Your task to perform on an android device: Open Google Maps and go to "Timeline" Image 0: 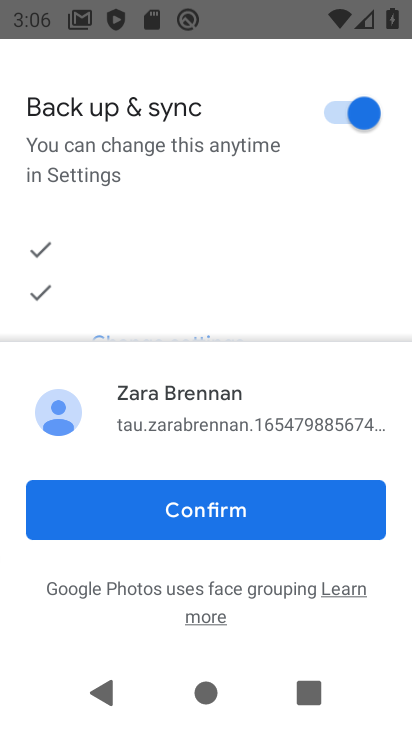
Step 0: press home button
Your task to perform on an android device: Open Google Maps and go to "Timeline" Image 1: 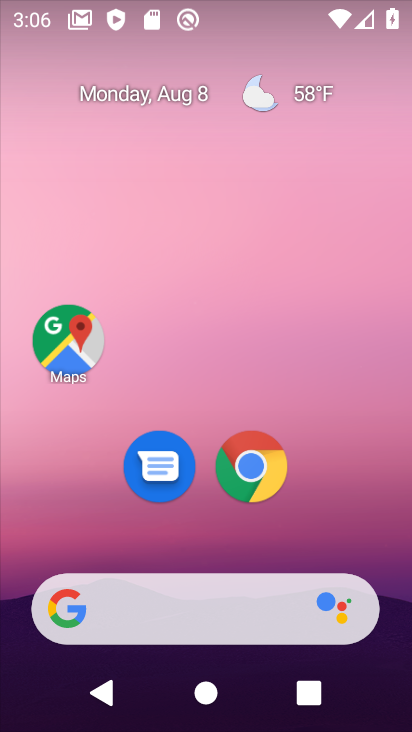
Step 1: drag from (208, 549) to (200, 298)
Your task to perform on an android device: Open Google Maps and go to "Timeline" Image 2: 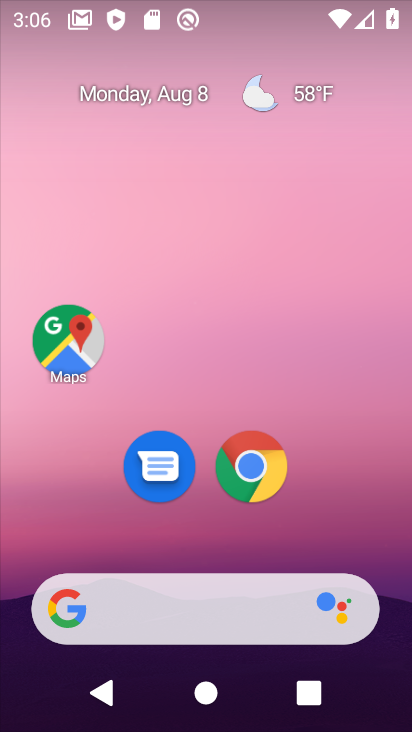
Step 2: drag from (155, 617) to (217, 169)
Your task to perform on an android device: Open Google Maps and go to "Timeline" Image 3: 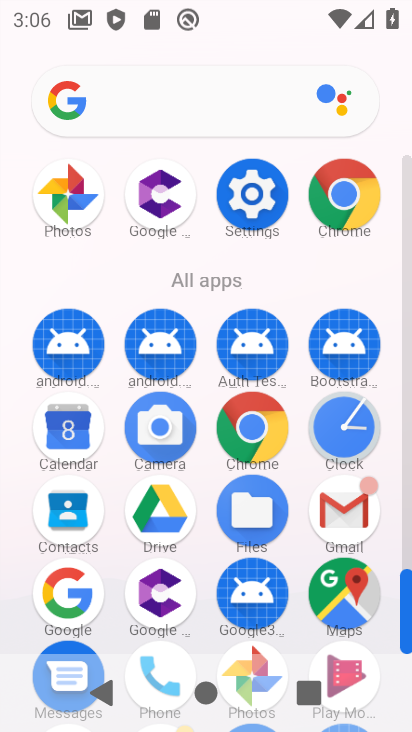
Step 3: click (242, 184)
Your task to perform on an android device: Open Google Maps and go to "Timeline" Image 4: 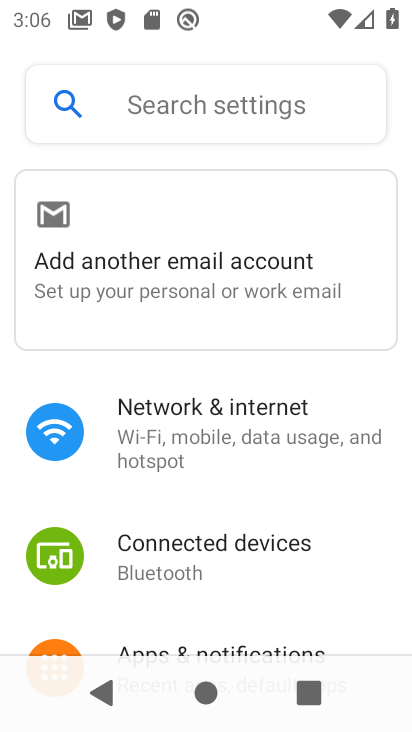
Step 4: press home button
Your task to perform on an android device: Open Google Maps and go to "Timeline" Image 5: 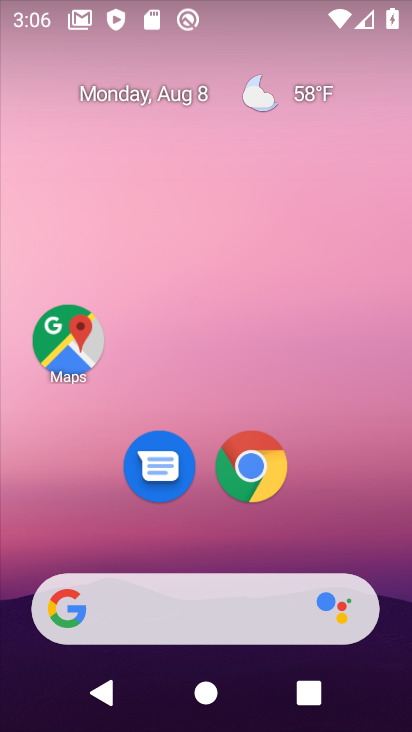
Step 5: drag from (187, 586) to (210, 190)
Your task to perform on an android device: Open Google Maps and go to "Timeline" Image 6: 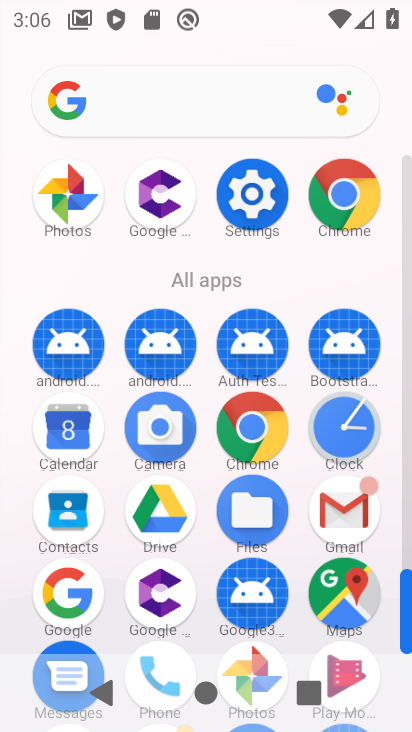
Step 6: click (351, 583)
Your task to perform on an android device: Open Google Maps and go to "Timeline" Image 7: 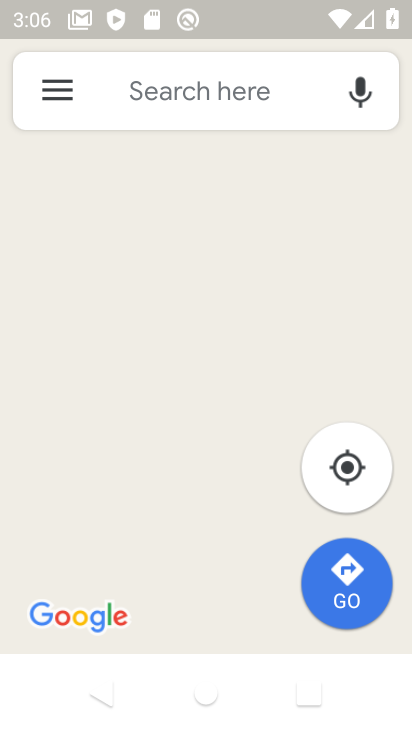
Step 7: click (42, 74)
Your task to perform on an android device: Open Google Maps and go to "Timeline" Image 8: 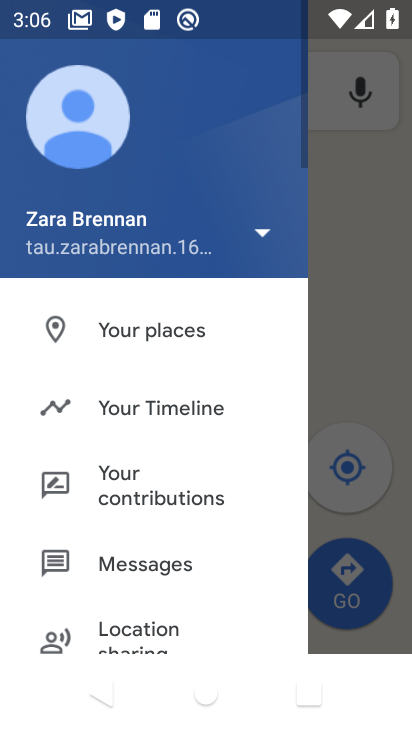
Step 8: click (151, 410)
Your task to perform on an android device: Open Google Maps and go to "Timeline" Image 9: 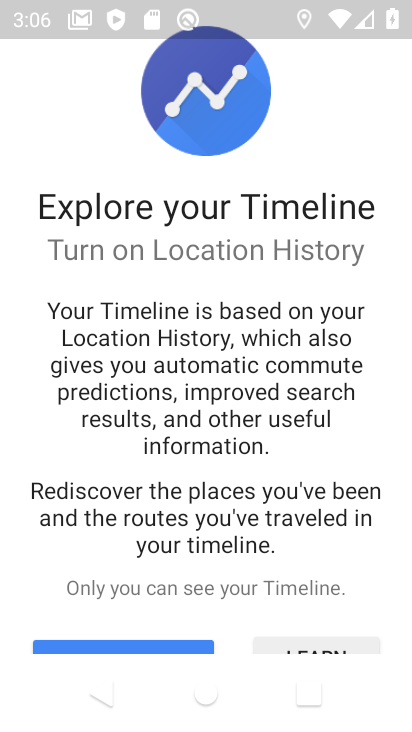
Step 9: drag from (162, 569) to (243, 192)
Your task to perform on an android device: Open Google Maps and go to "Timeline" Image 10: 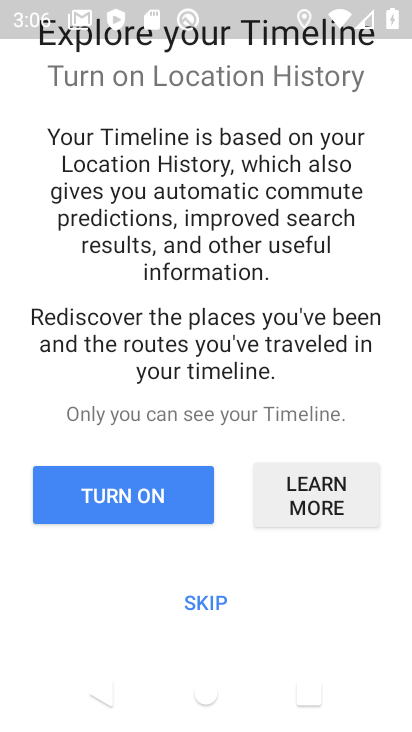
Step 10: click (186, 594)
Your task to perform on an android device: Open Google Maps and go to "Timeline" Image 11: 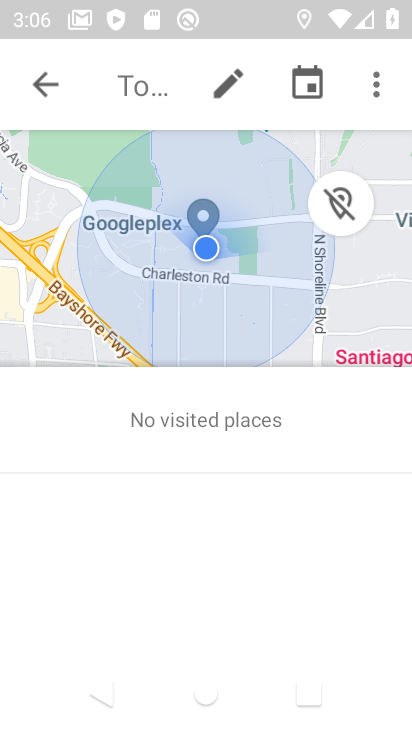
Step 11: task complete